Your task to perform on an android device: open chrome and create a bookmark for the current page Image 0: 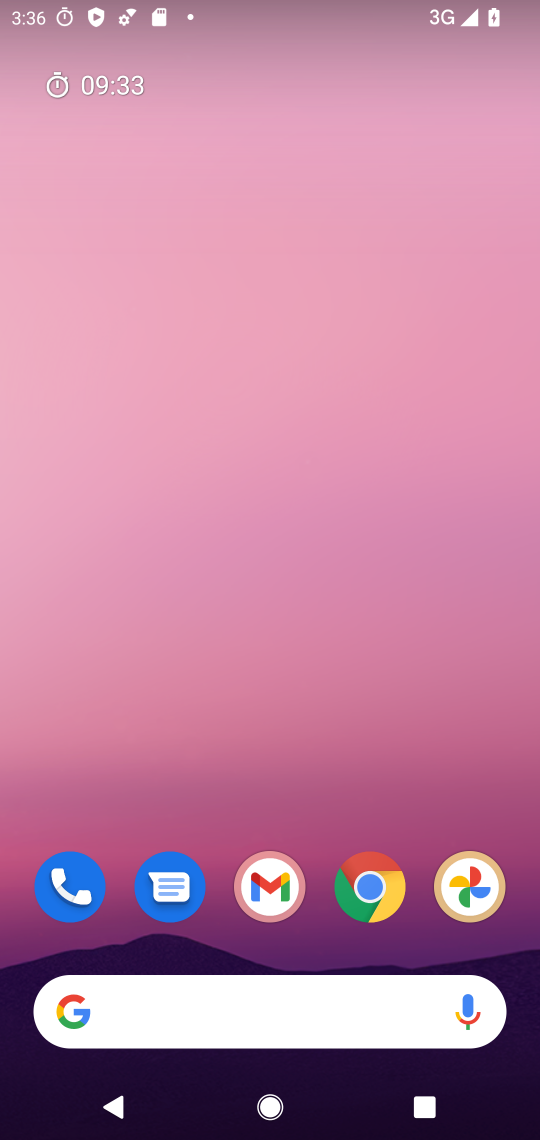
Step 0: drag from (428, 525) to (447, 230)
Your task to perform on an android device: open chrome and create a bookmark for the current page Image 1: 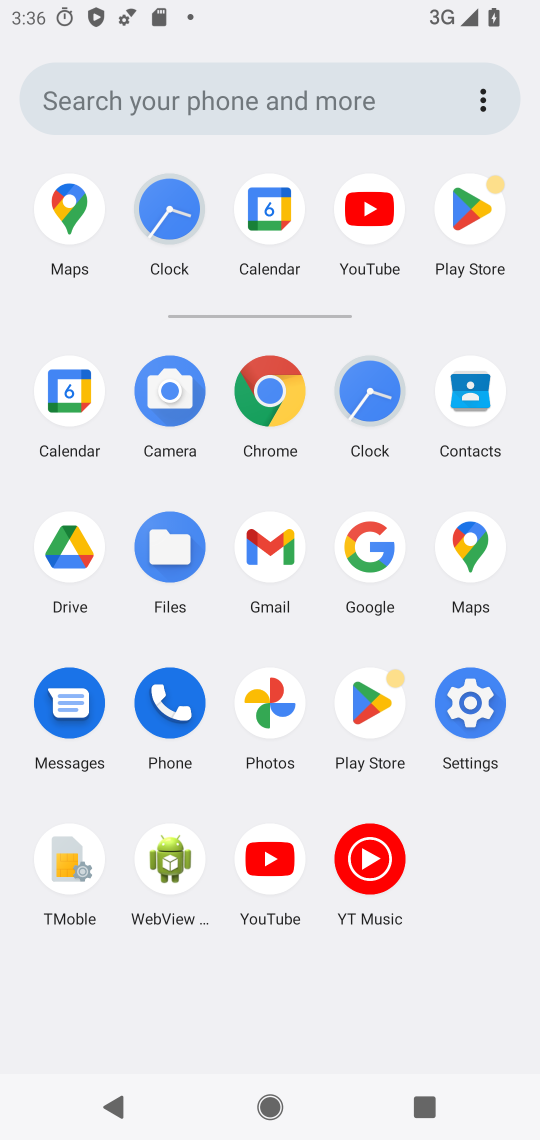
Step 1: click (270, 390)
Your task to perform on an android device: open chrome and create a bookmark for the current page Image 2: 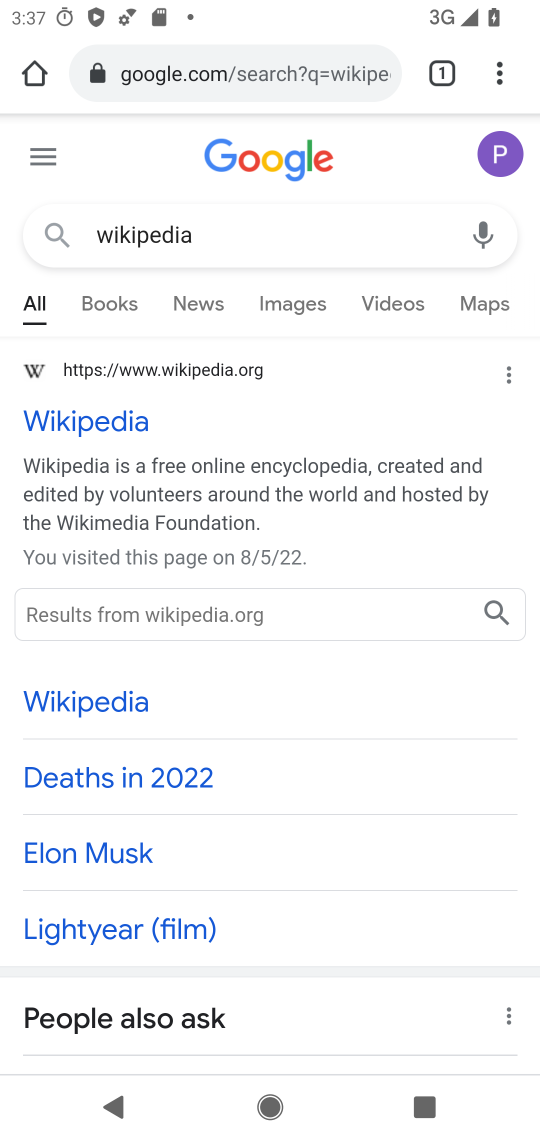
Step 2: click (501, 77)
Your task to perform on an android device: open chrome and create a bookmark for the current page Image 3: 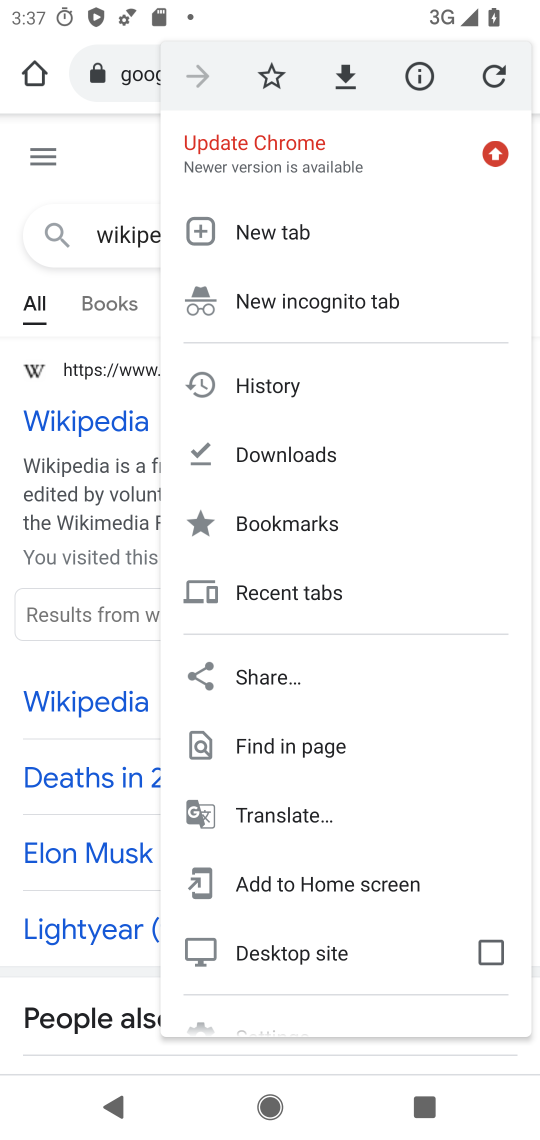
Step 3: click (270, 67)
Your task to perform on an android device: open chrome and create a bookmark for the current page Image 4: 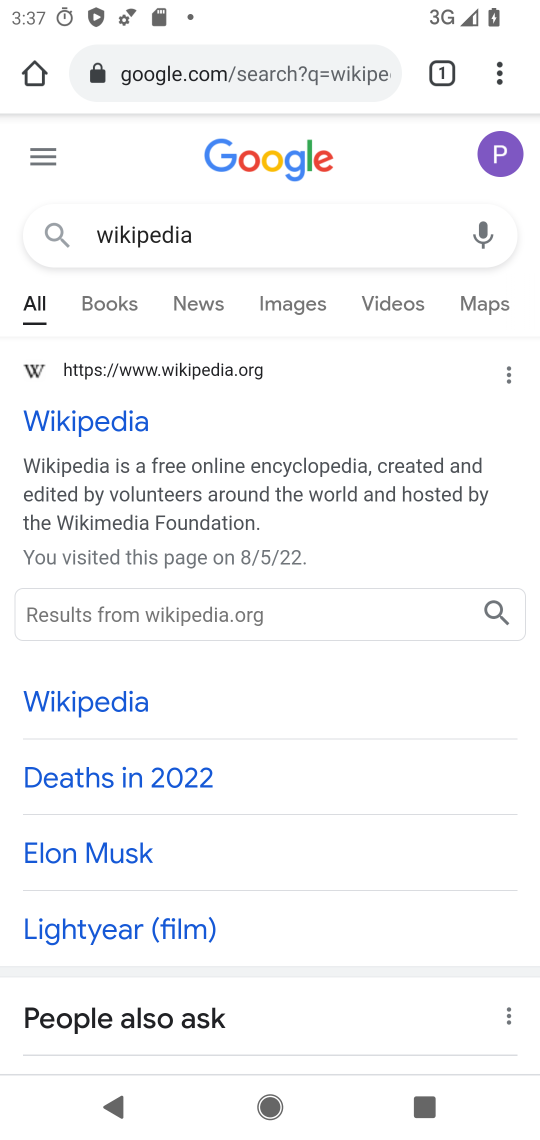
Step 4: task complete